Your task to perform on an android device: change timer sound Image 0: 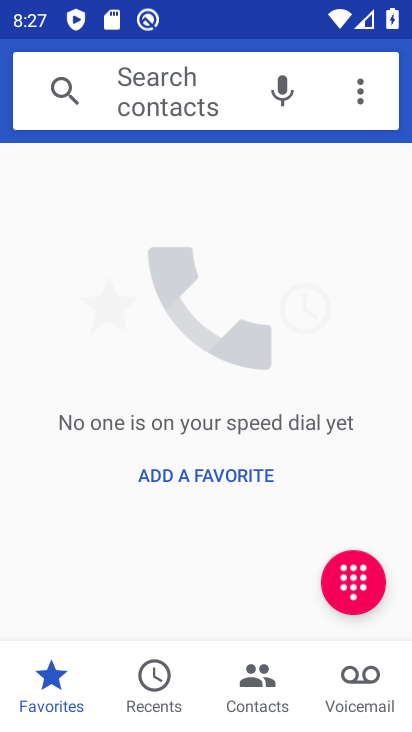
Step 0: press home button
Your task to perform on an android device: change timer sound Image 1: 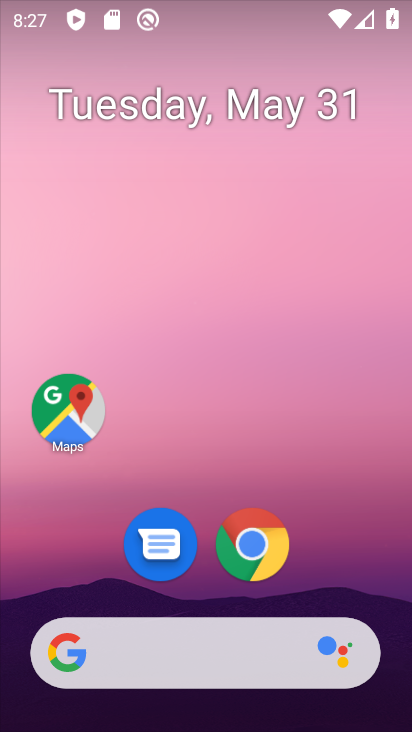
Step 1: drag from (340, 583) to (344, 1)
Your task to perform on an android device: change timer sound Image 2: 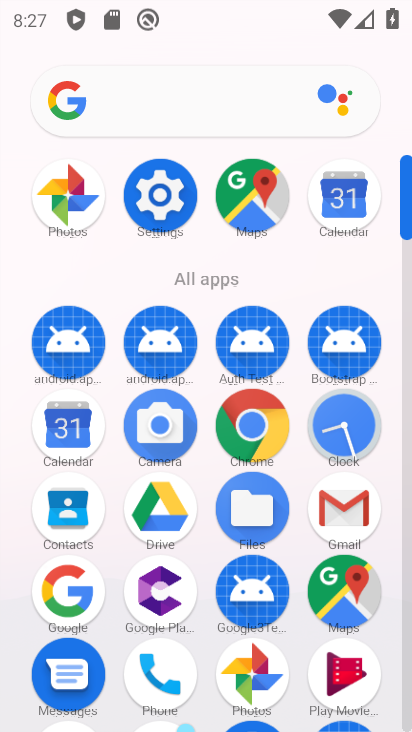
Step 2: click (342, 428)
Your task to perform on an android device: change timer sound Image 3: 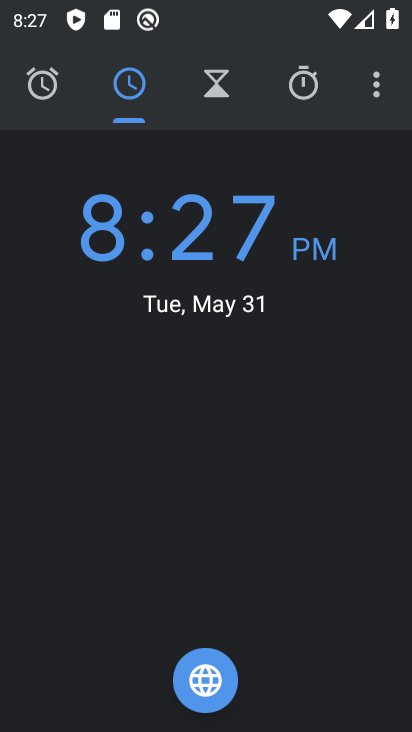
Step 3: click (373, 82)
Your task to perform on an android device: change timer sound Image 4: 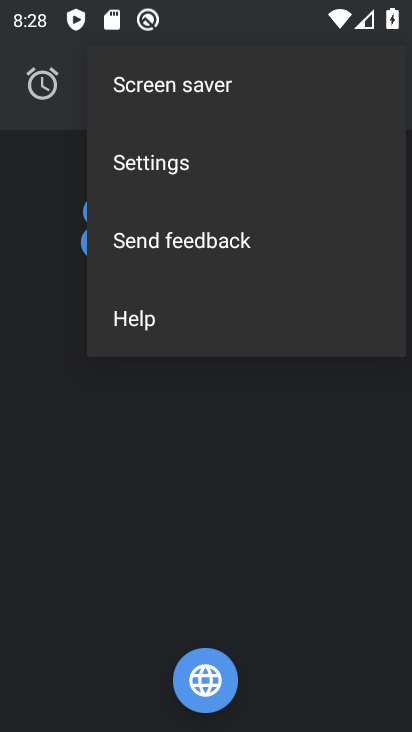
Step 4: click (165, 174)
Your task to perform on an android device: change timer sound Image 5: 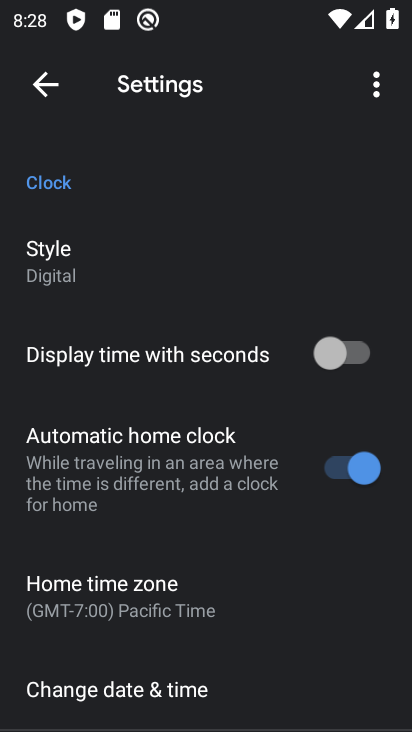
Step 5: drag from (167, 525) to (271, 136)
Your task to perform on an android device: change timer sound Image 6: 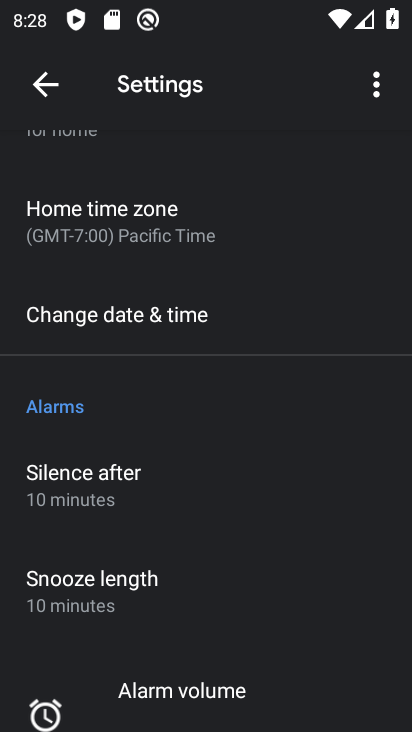
Step 6: drag from (118, 543) to (213, 146)
Your task to perform on an android device: change timer sound Image 7: 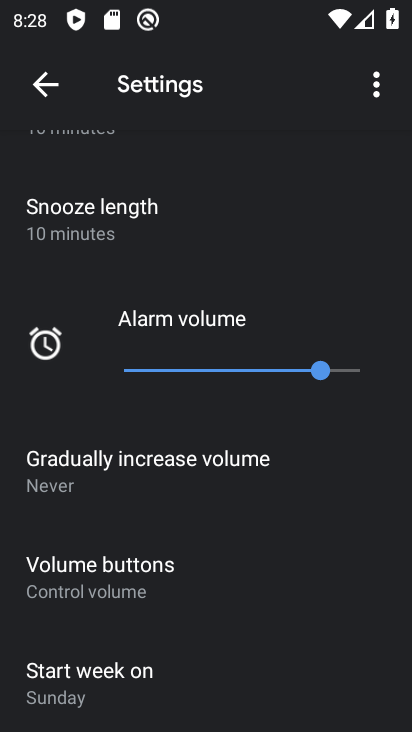
Step 7: drag from (130, 669) to (149, 349)
Your task to perform on an android device: change timer sound Image 8: 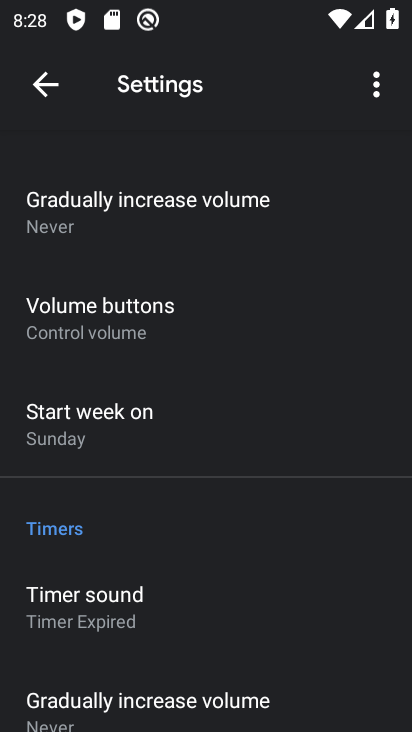
Step 8: click (131, 614)
Your task to perform on an android device: change timer sound Image 9: 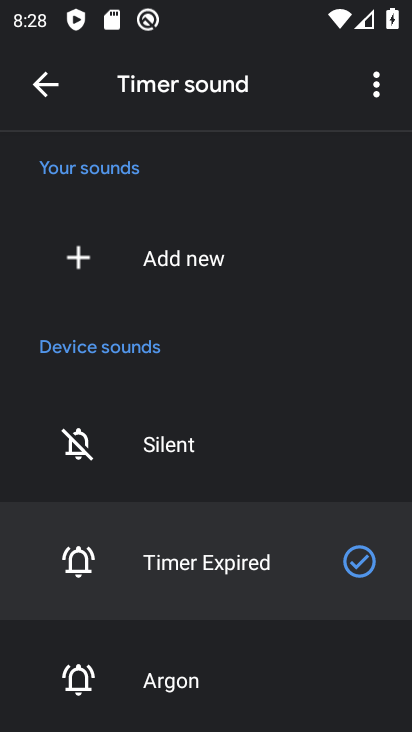
Step 9: click (221, 703)
Your task to perform on an android device: change timer sound Image 10: 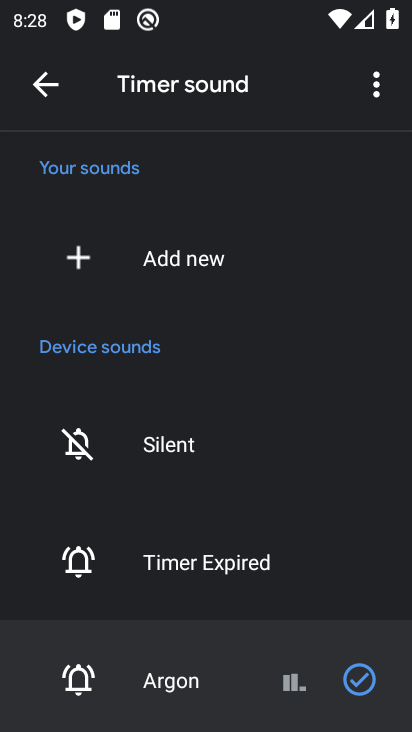
Step 10: task complete